Your task to perform on an android device: open the mobile data screen to see how much data has been used Image 0: 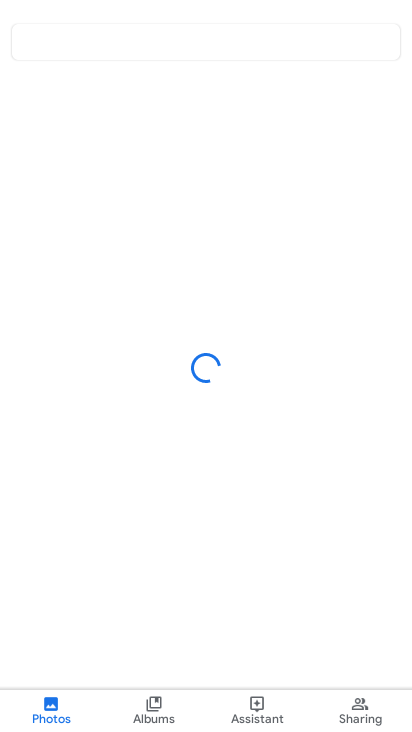
Step 0: press home button
Your task to perform on an android device: open the mobile data screen to see how much data has been used Image 1: 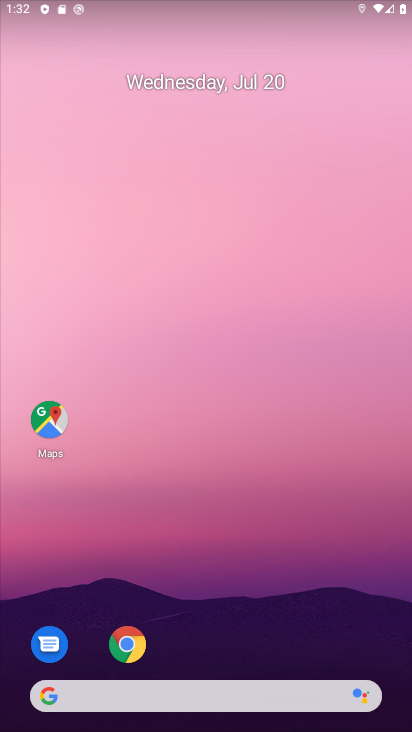
Step 1: drag from (280, 624) to (245, 156)
Your task to perform on an android device: open the mobile data screen to see how much data has been used Image 2: 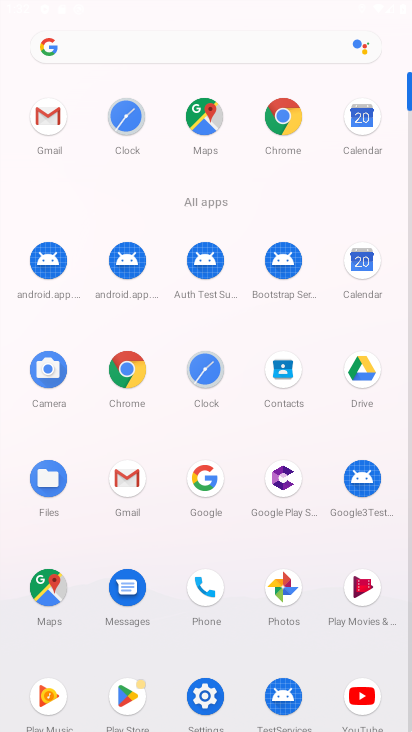
Step 2: click (210, 696)
Your task to perform on an android device: open the mobile data screen to see how much data has been used Image 3: 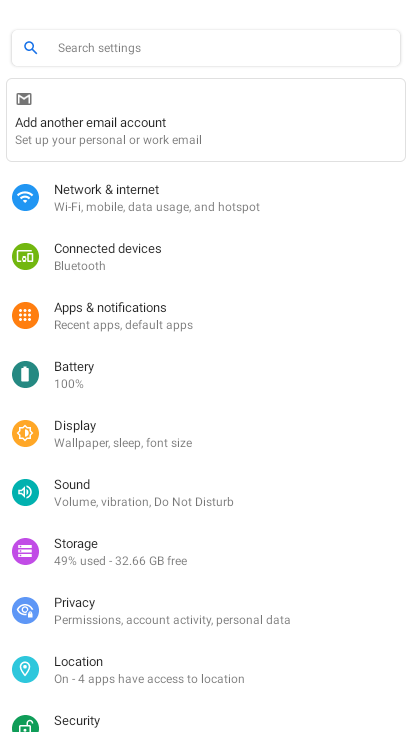
Step 3: click (208, 206)
Your task to perform on an android device: open the mobile data screen to see how much data has been used Image 4: 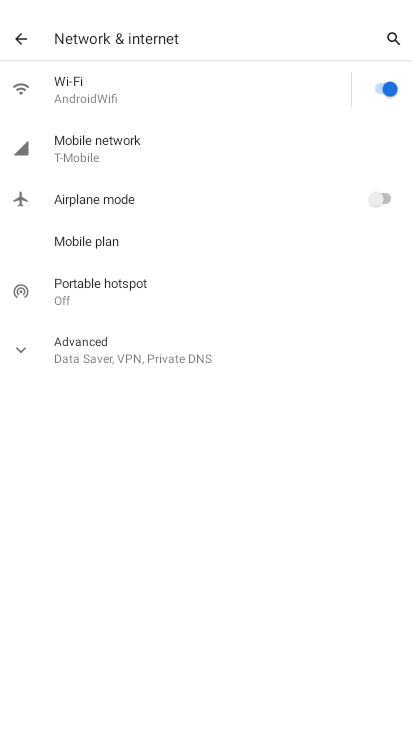
Step 4: click (103, 138)
Your task to perform on an android device: open the mobile data screen to see how much data has been used Image 5: 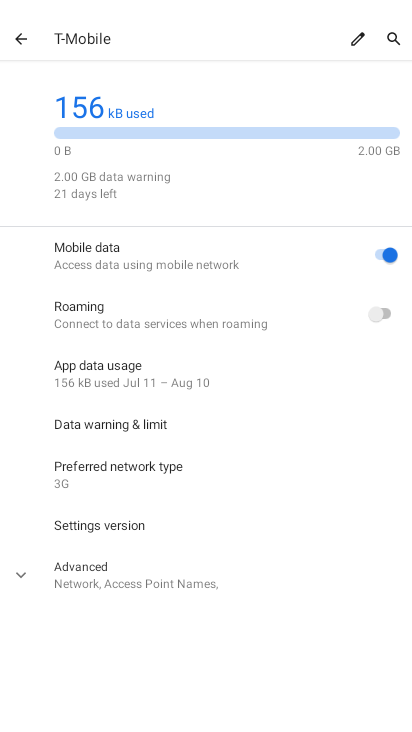
Step 5: click (147, 387)
Your task to perform on an android device: open the mobile data screen to see how much data has been used Image 6: 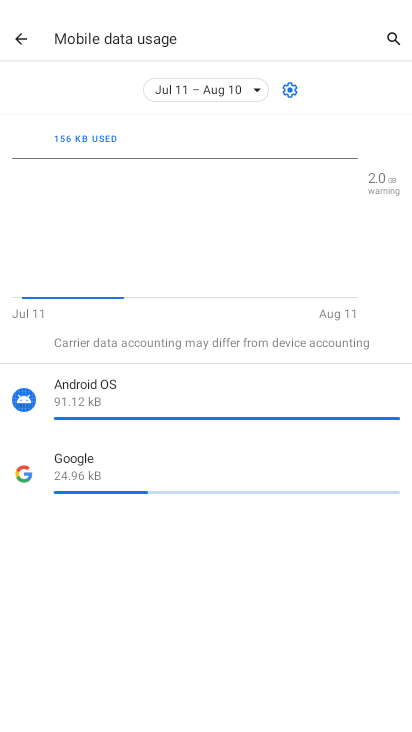
Step 6: task complete